Your task to perform on an android device: open a bookmark in the chrome app Image 0: 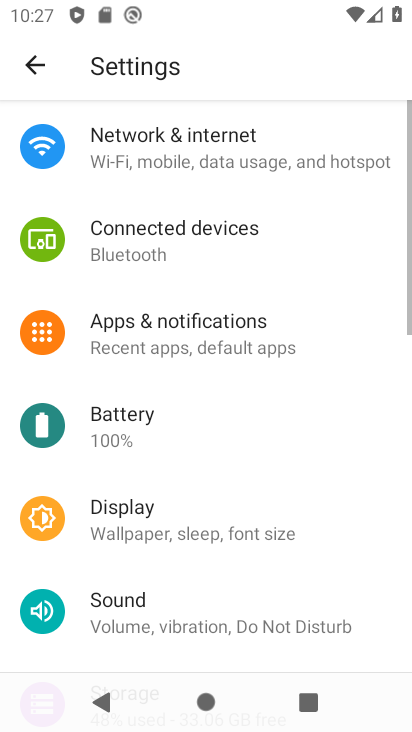
Step 0: press back button
Your task to perform on an android device: open a bookmark in the chrome app Image 1: 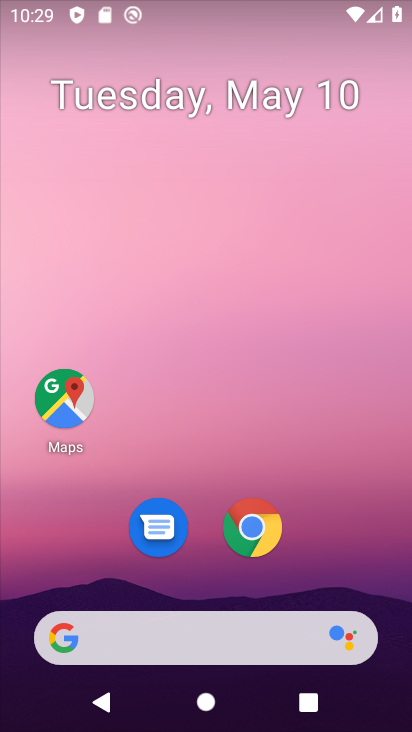
Step 1: click (254, 531)
Your task to perform on an android device: open a bookmark in the chrome app Image 2: 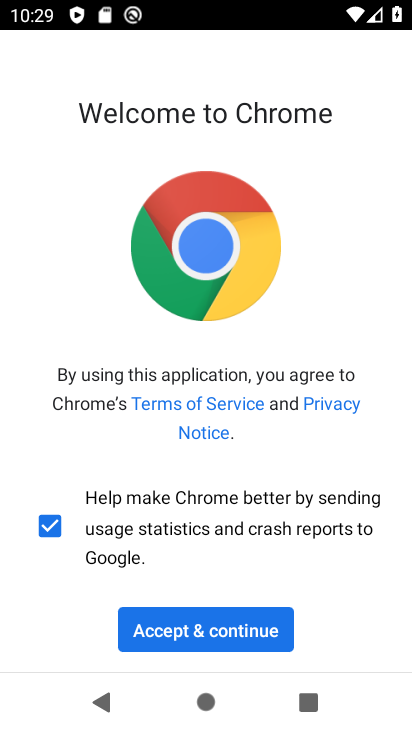
Step 2: click (159, 637)
Your task to perform on an android device: open a bookmark in the chrome app Image 3: 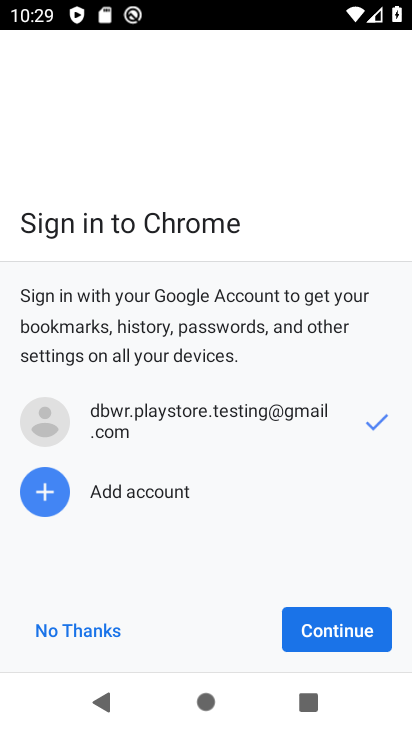
Step 3: click (354, 638)
Your task to perform on an android device: open a bookmark in the chrome app Image 4: 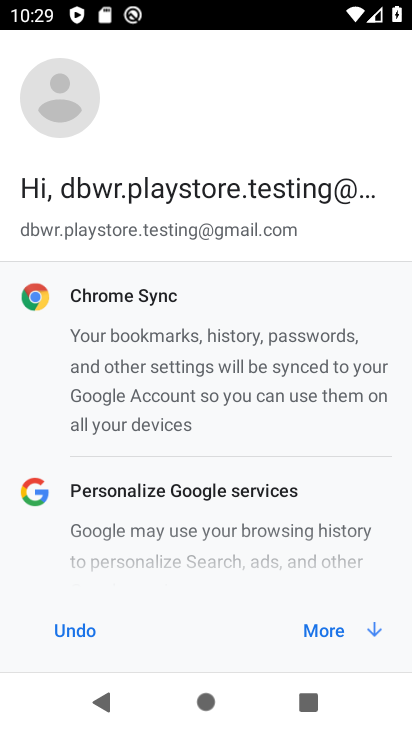
Step 4: click (341, 635)
Your task to perform on an android device: open a bookmark in the chrome app Image 5: 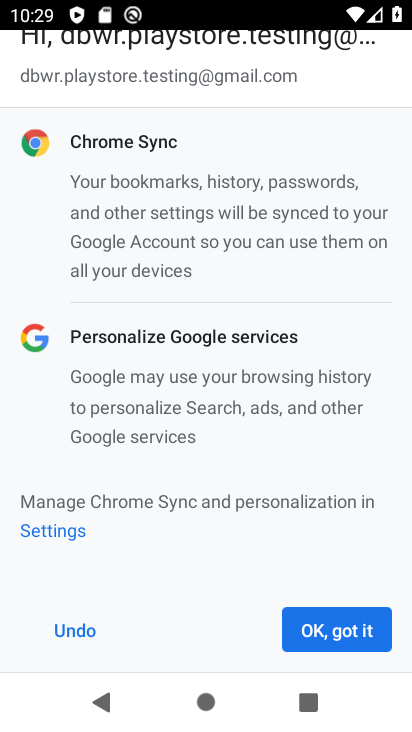
Step 5: click (348, 636)
Your task to perform on an android device: open a bookmark in the chrome app Image 6: 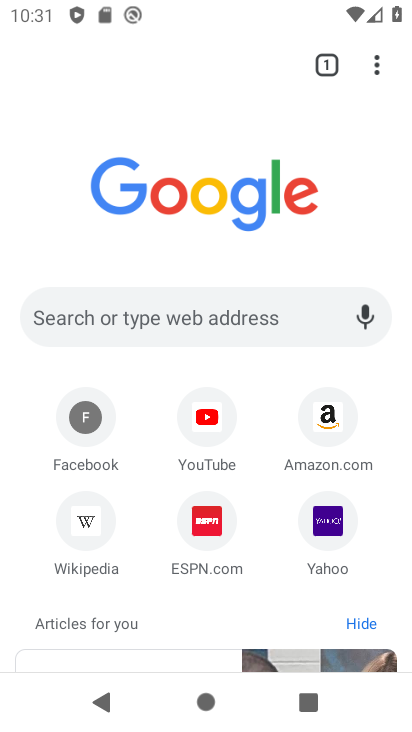
Step 6: drag from (374, 60) to (203, 249)
Your task to perform on an android device: open a bookmark in the chrome app Image 7: 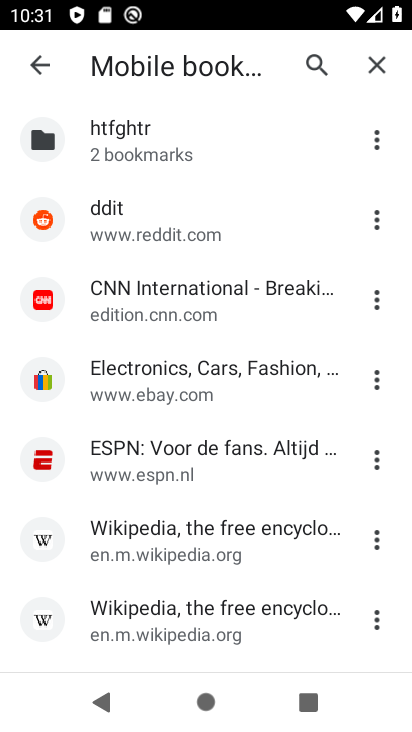
Step 7: click (143, 220)
Your task to perform on an android device: open a bookmark in the chrome app Image 8: 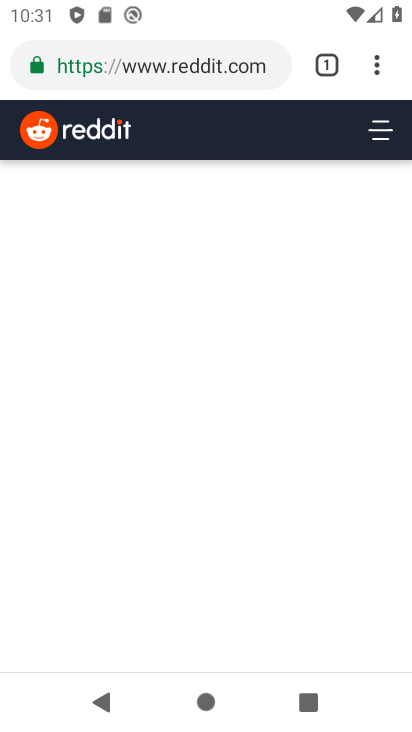
Step 8: task complete